Your task to perform on an android device: find photos in the google photos app Image 0: 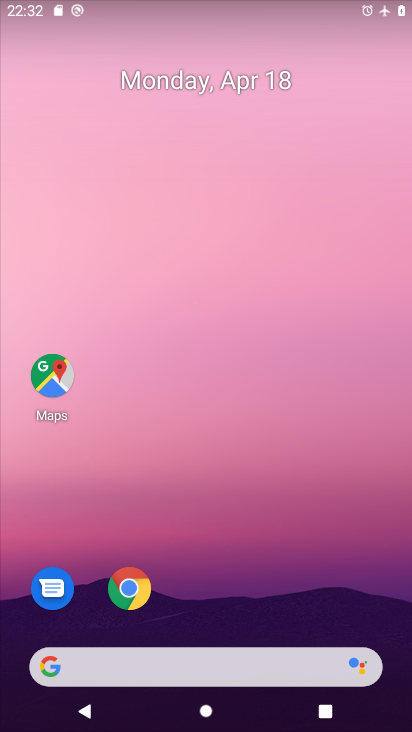
Step 0: drag from (208, 609) to (284, 185)
Your task to perform on an android device: find photos in the google photos app Image 1: 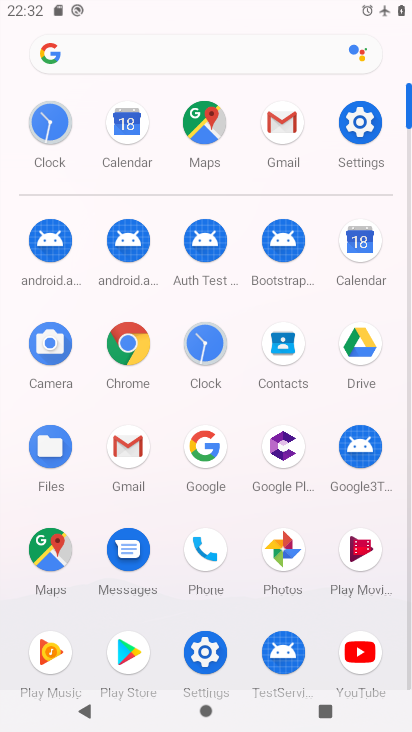
Step 1: click (285, 538)
Your task to perform on an android device: find photos in the google photos app Image 2: 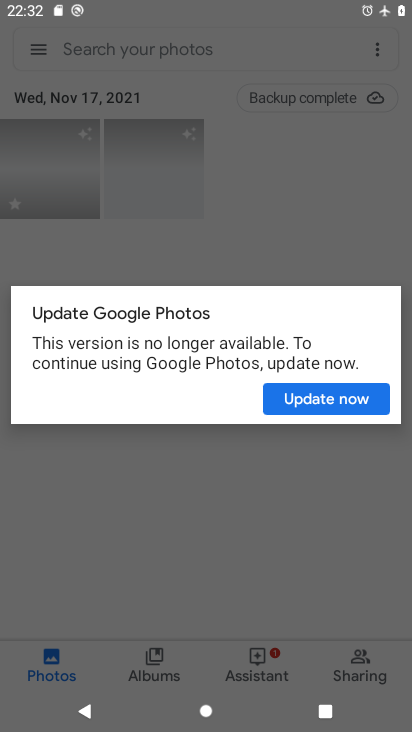
Step 2: click (368, 396)
Your task to perform on an android device: find photos in the google photos app Image 3: 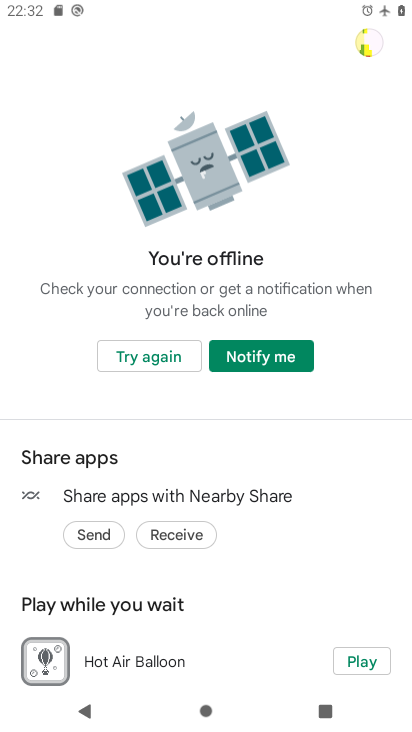
Step 3: task complete